Your task to perform on an android device: change text size in settings app Image 0: 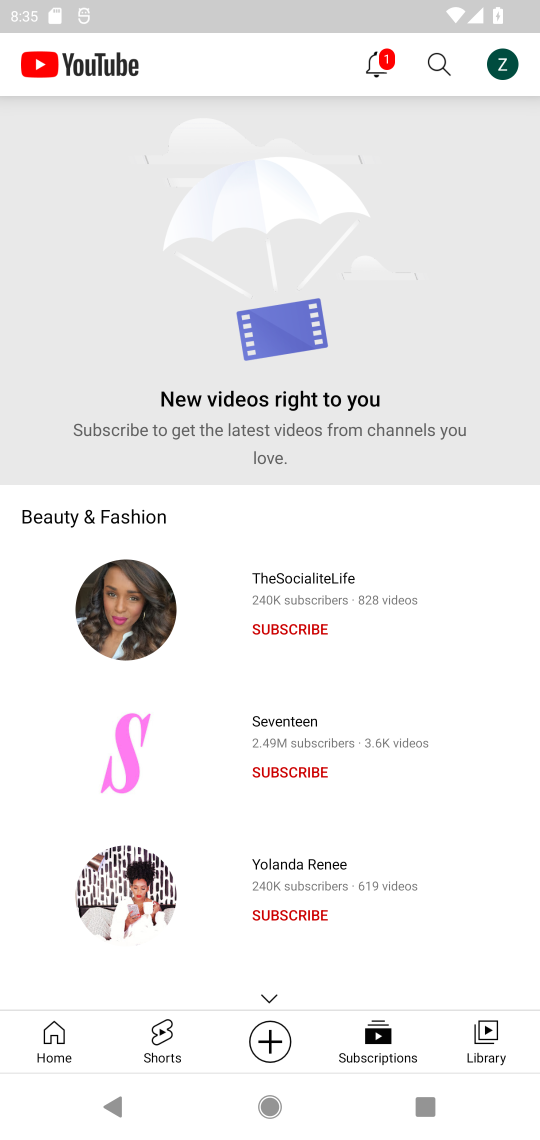
Step 0: press home button
Your task to perform on an android device: change text size in settings app Image 1: 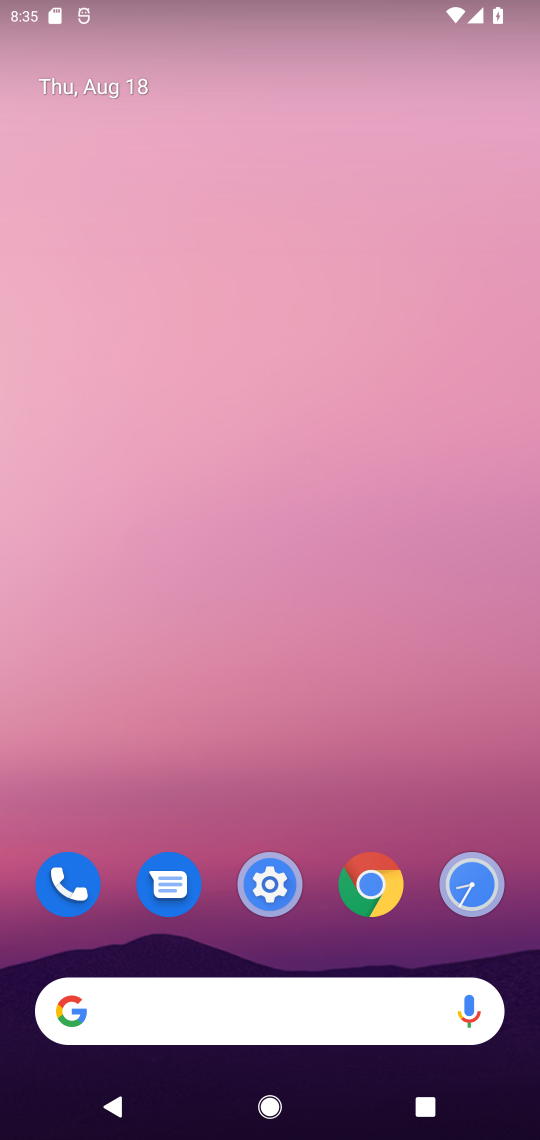
Step 1: click (255, 877)
Your task to perform on an android device: change text size in settings app Image 2: 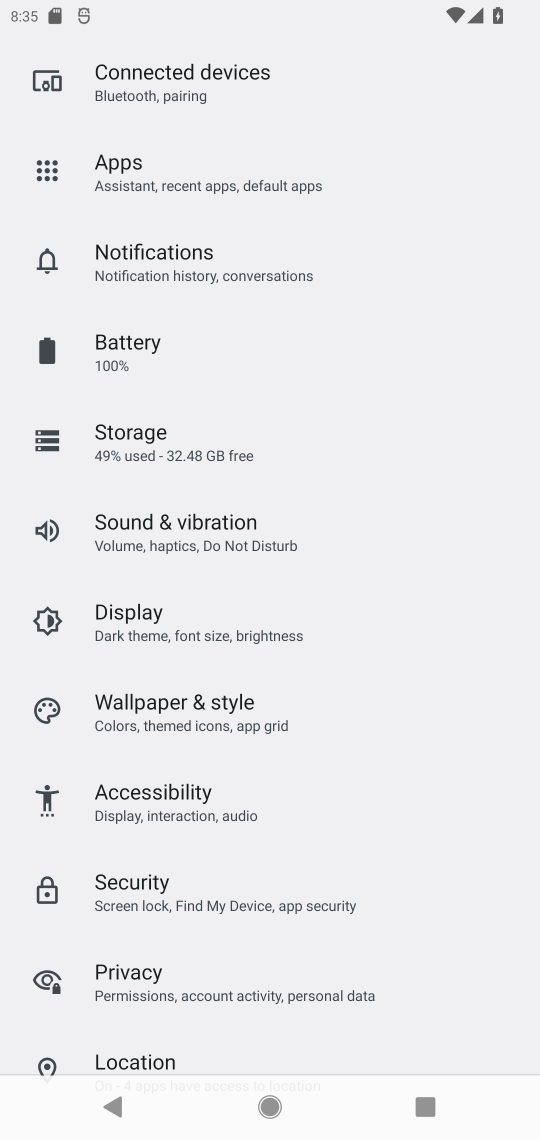
Step 2: drag from (159, 910) to (149, 251)
Your task to perform on an android device: change text size in settings app Image 3: 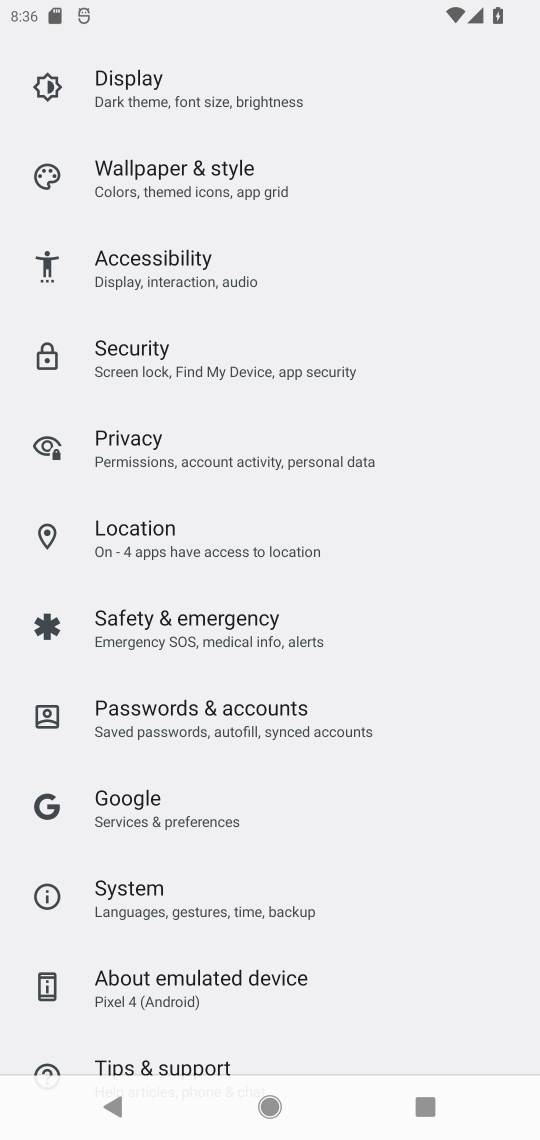
Step 3: drag from (208, 262) to (283, 968)
Your task to perform on an android device: change text size in settings app Image 4: 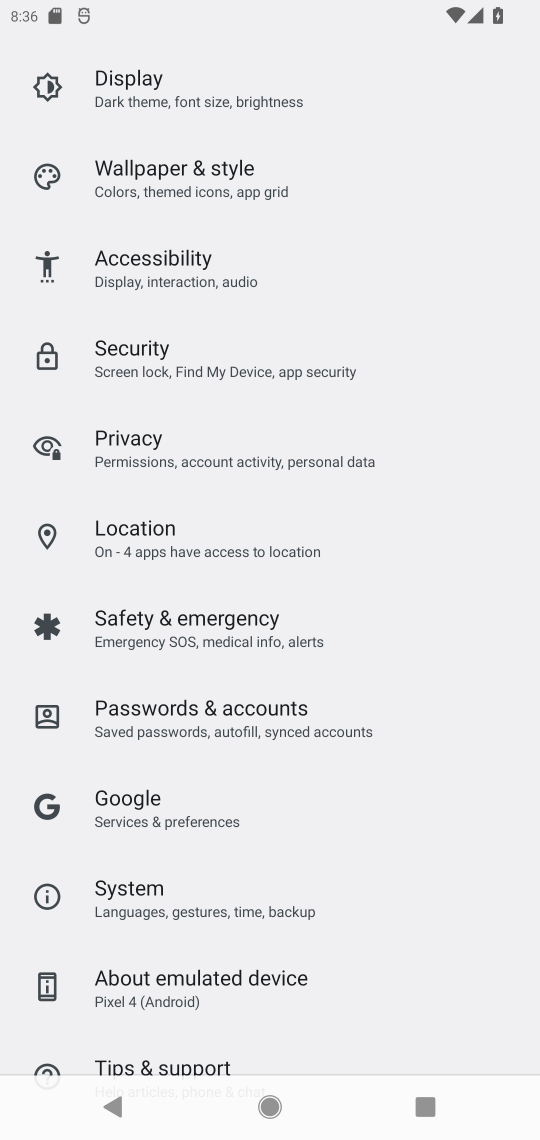
Step 4: drag from (225, 139) to (269, 986)
Your task to perform on an android device: change text size in settings app Image 5: 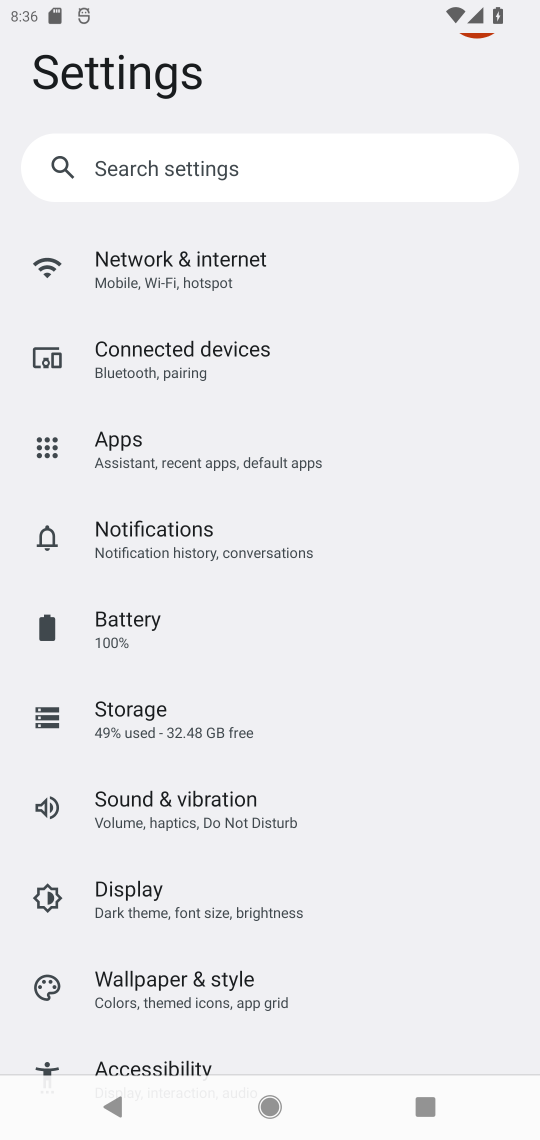
Step 5: click (164, 894)
Your task to perform on an android device: change text size in settings app Image 6: 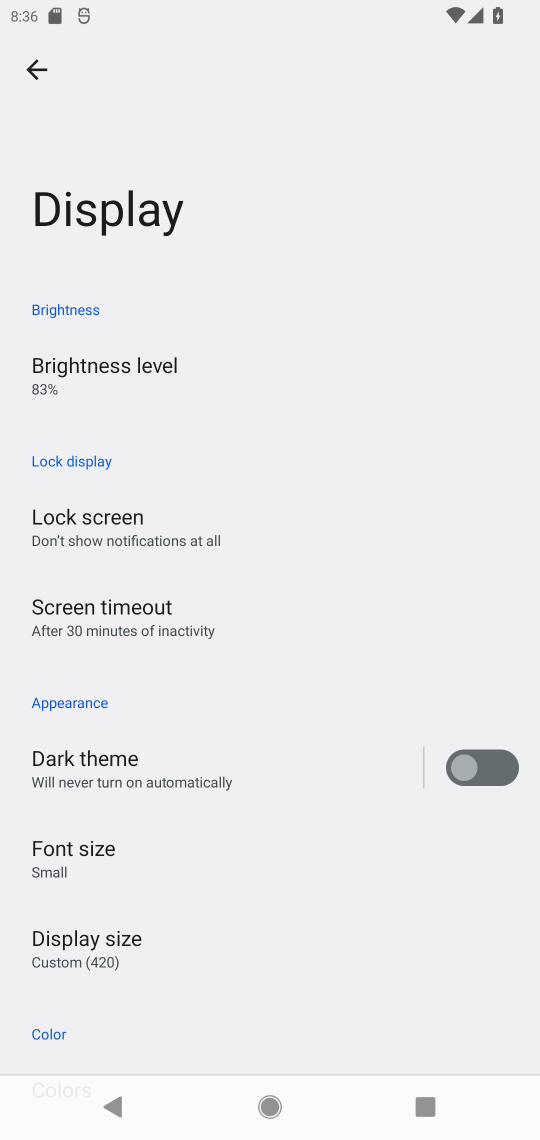
Step 6: click (148, 850)
Your task to perform on an android device: change text size in settings app Image 7: 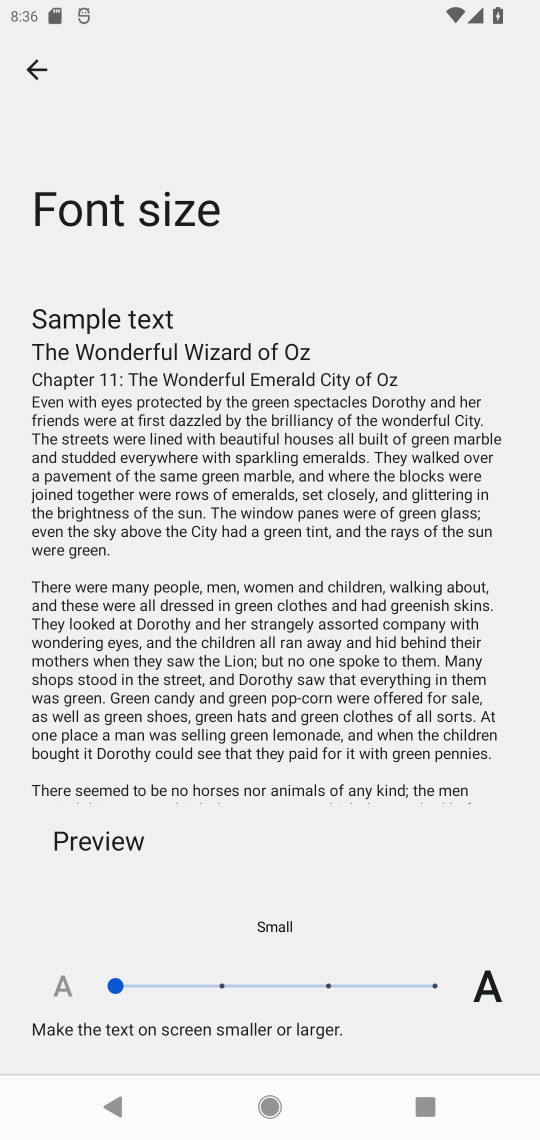
Step 7: task complete